Your task to perform on an android device: toggle location history Image 0: 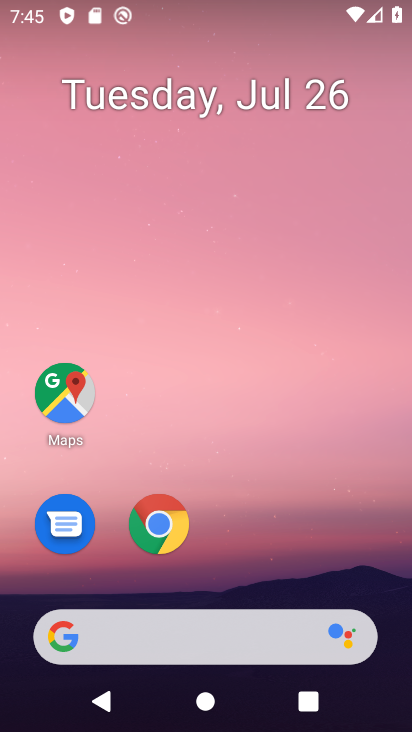
Step 0: drag from (240, 552) to (182, 22)
Your task to perform on an android device: toggle location history Image 1: 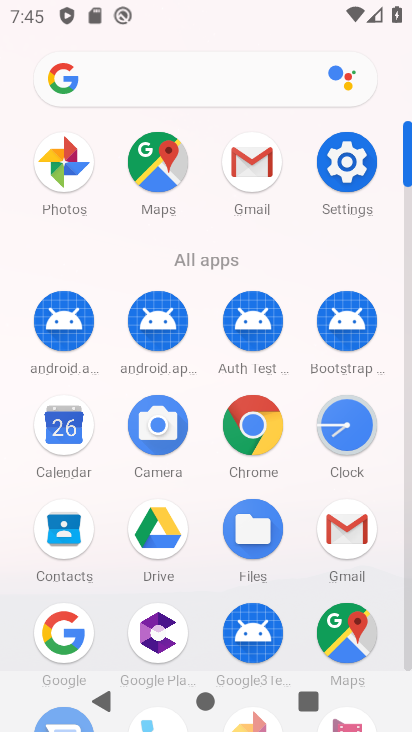
Step 1: click (341, 159)
Your task to perform on an android device: toggle location history Image 2: 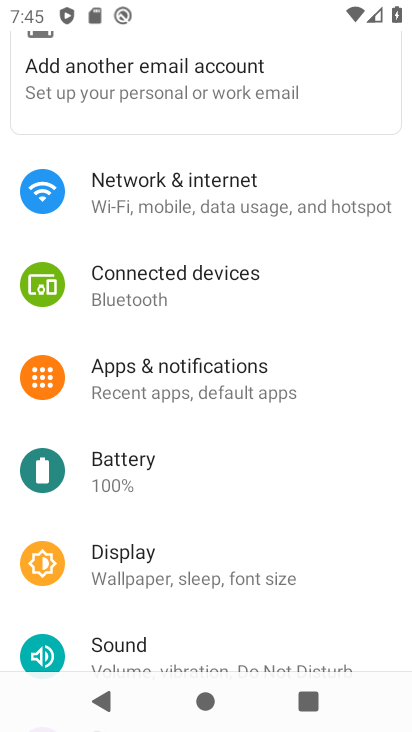
Step 2: drag from (209, 501) to (189, 131)
Your task to perform on an android device: toggle location history Image 3: 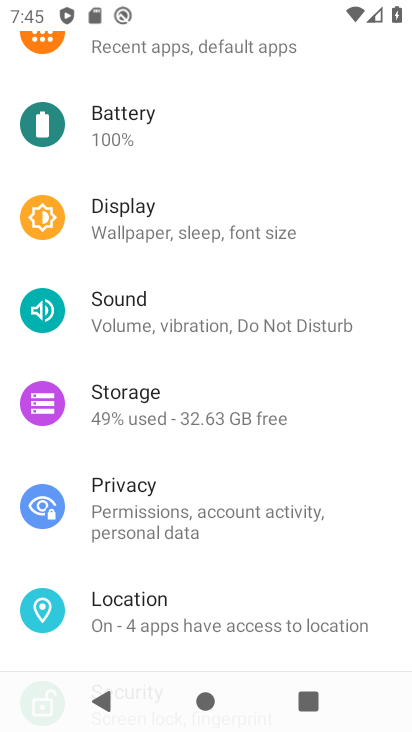
Step 3: drag from (235, 452) to (242, 174)
Your task to perform on an android device: toggle location history Image 4: 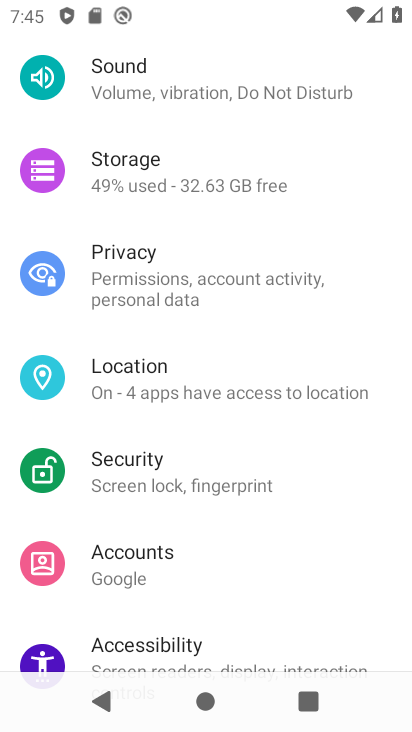
Step 4: click (208, 377)
Your task to perform on an android device: toggle location history Image 5: 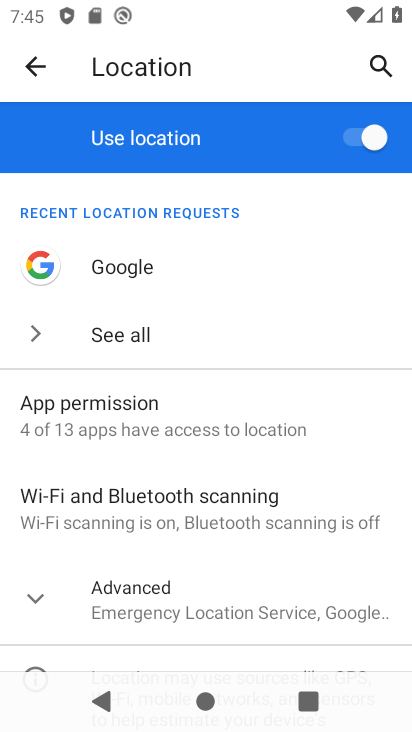
Step 5: drag from (239, 449) to (248, 209)
Your task to perform on an android device: toggle location history Image 6: 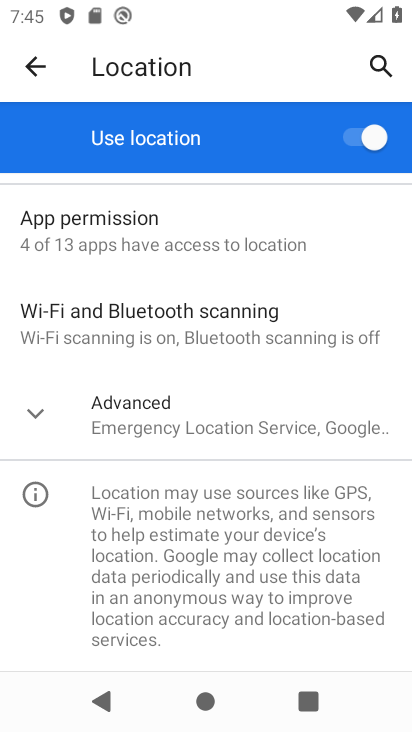
Step 6: click (35, 410)
Your task to perform on an android device: toggle location history Image 7: 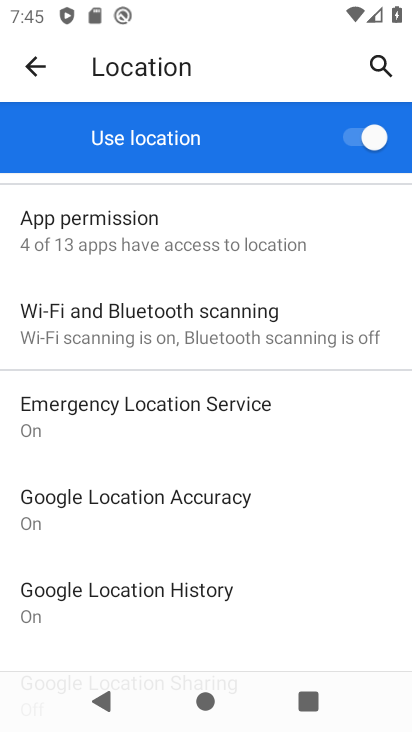
Step 7: click (135, 597)
Your task to perform on an android device: toggle location history Image 8: 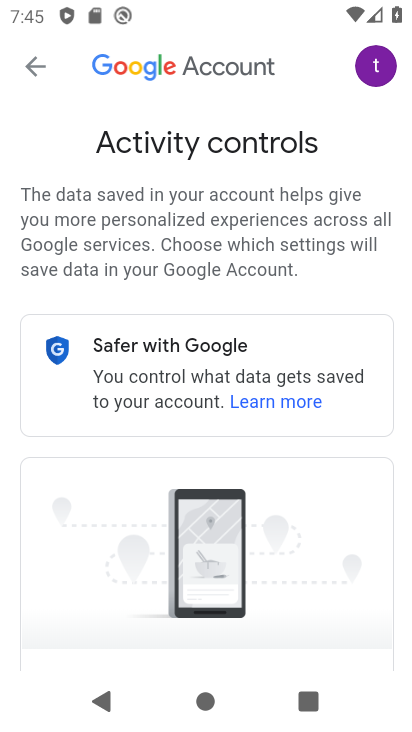
Step 8: drag from (306, 446) to (313, 134)
Your task to perform on an android device: toggle location history Image 9: 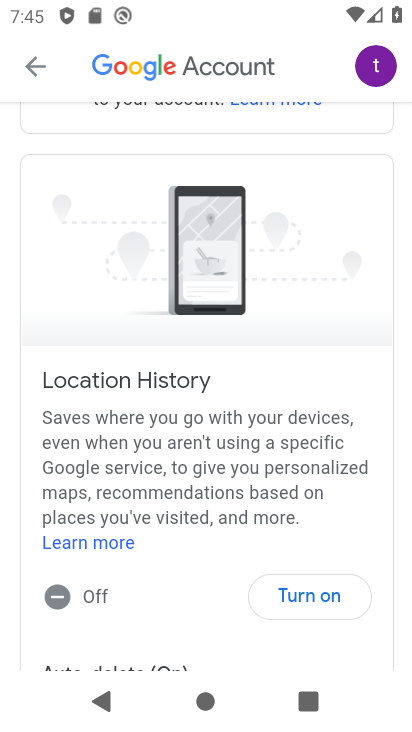
Step 9: click (320, 589)
Your task to perform on an android device: toggle location history Image 10: 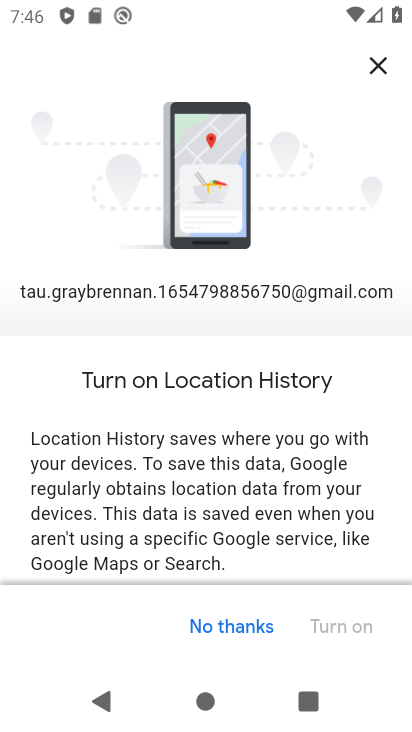
Step 10: drag from (266, 487) to (280, 310)
Your task to perform on an android device: toggle location history Image 11: 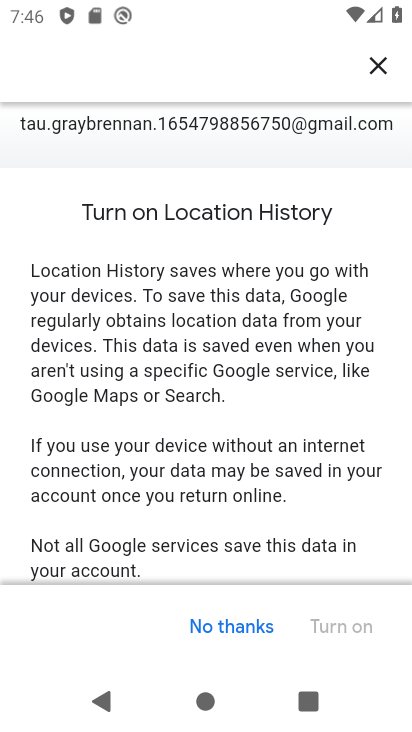
Step 11: drag from (247, 519) to (259, 216)
Your task to perform on an android device: toggle location history Image 12: 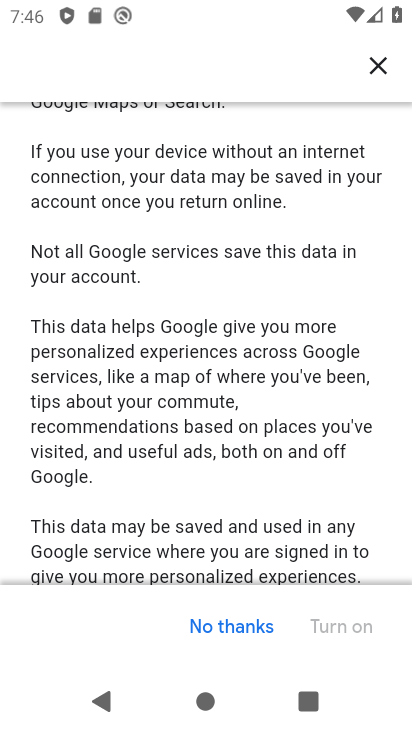
Step 12: drag from (252, 465) to (291, 171)
Your task to perform on an android device: toggle location history Image 13: 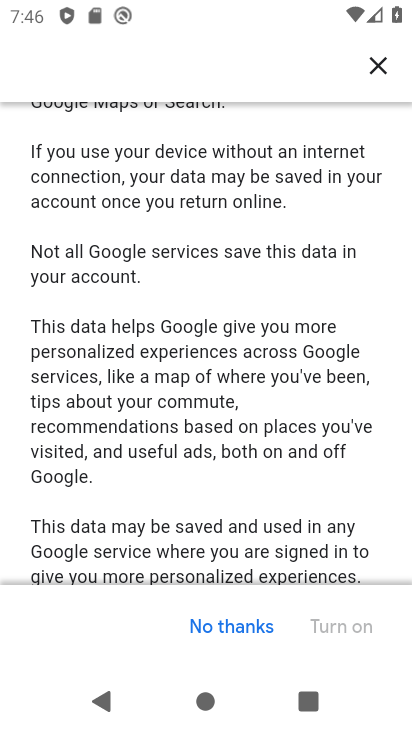
Step 13: drag from (176, 460) to (230, 91)
Your task to perform on an android device: toggle location history Image 14: 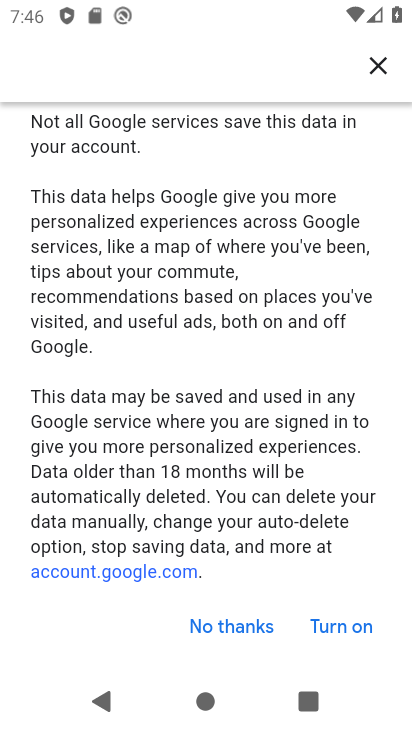
Step 14: click (337, 622)
Your task to perform on an android device: toggle location history Image 15: 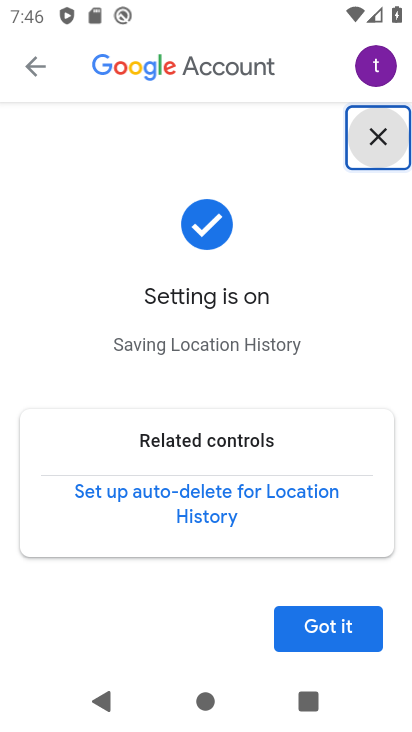
Step 15: click (334, 627)
Your task to perform on an android device: toggle location history Image 16: 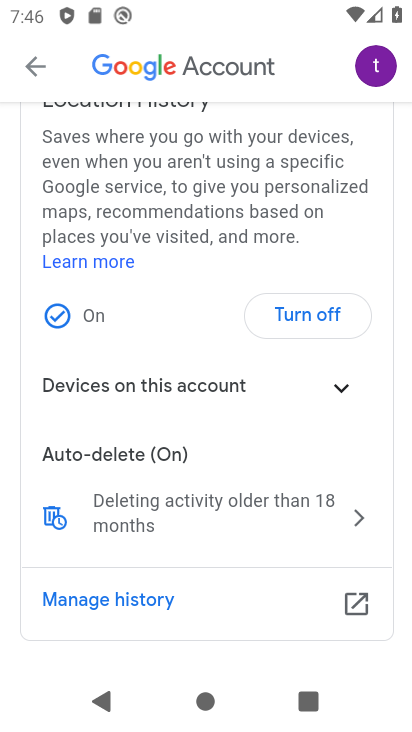
Step 16: task complete